Your task to perform on an android device: toggle sleep mode Image 0: 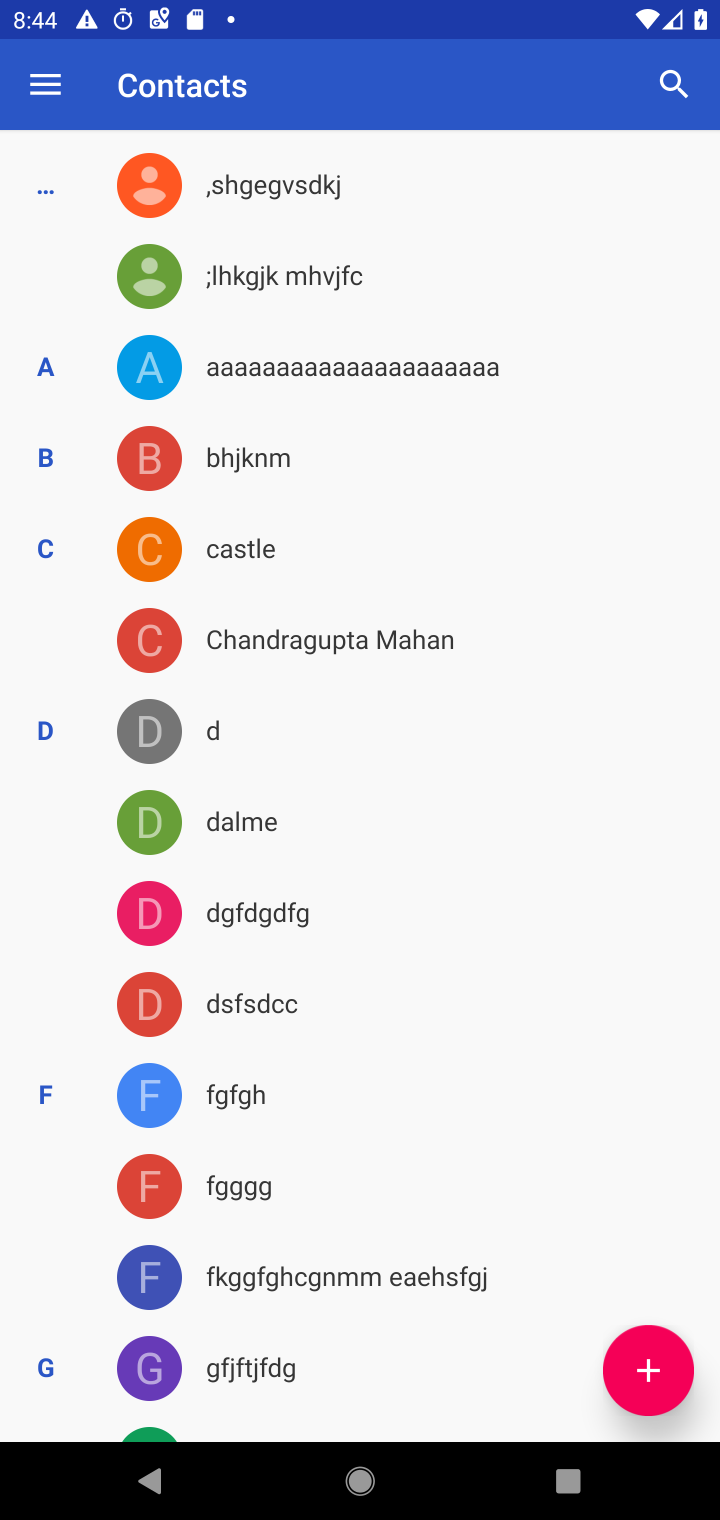
Step 0: press home button
Your task to perform on an android device: toggle sleep mode Image 1: 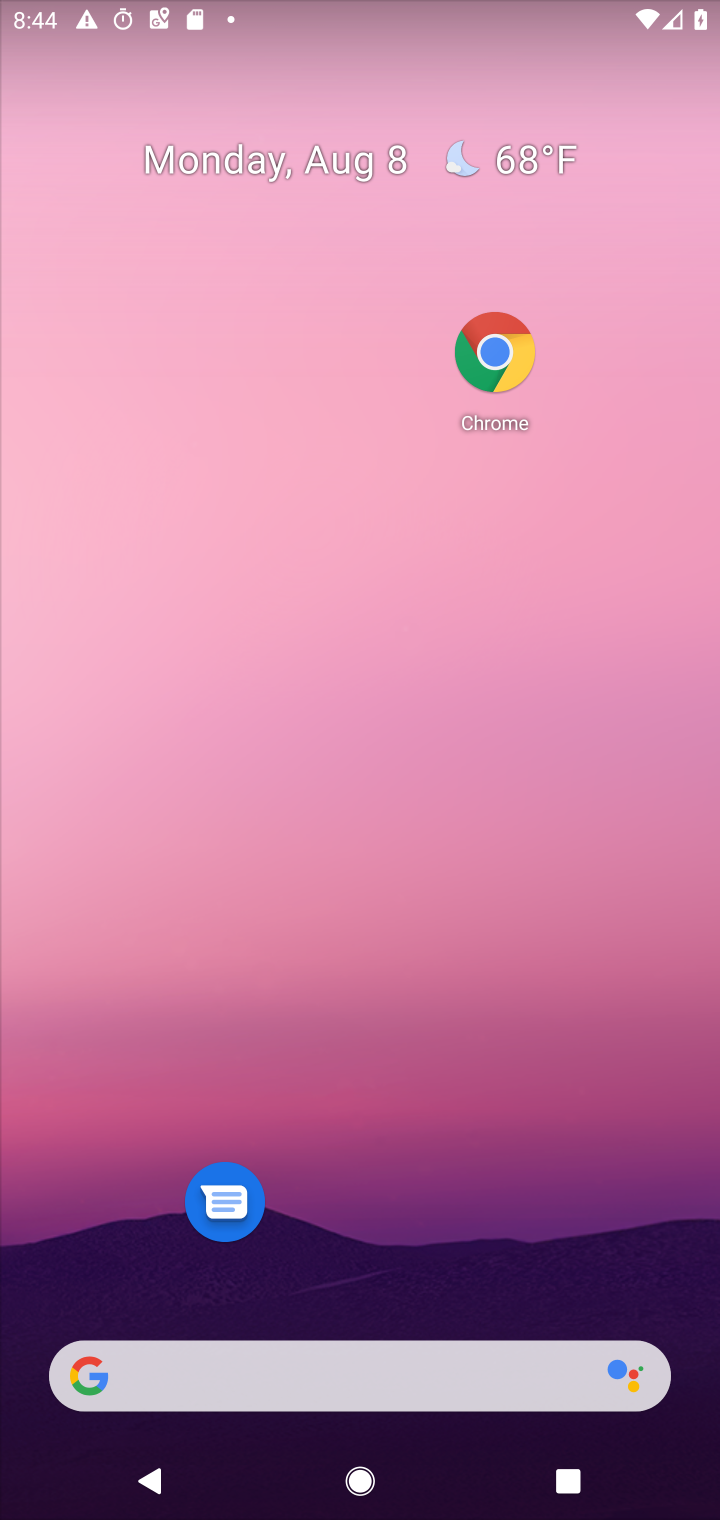
Step 1: drag from (415, 1330) to (546, 162)
Your task to perform on an android device: toggle sleep mode Image 2: 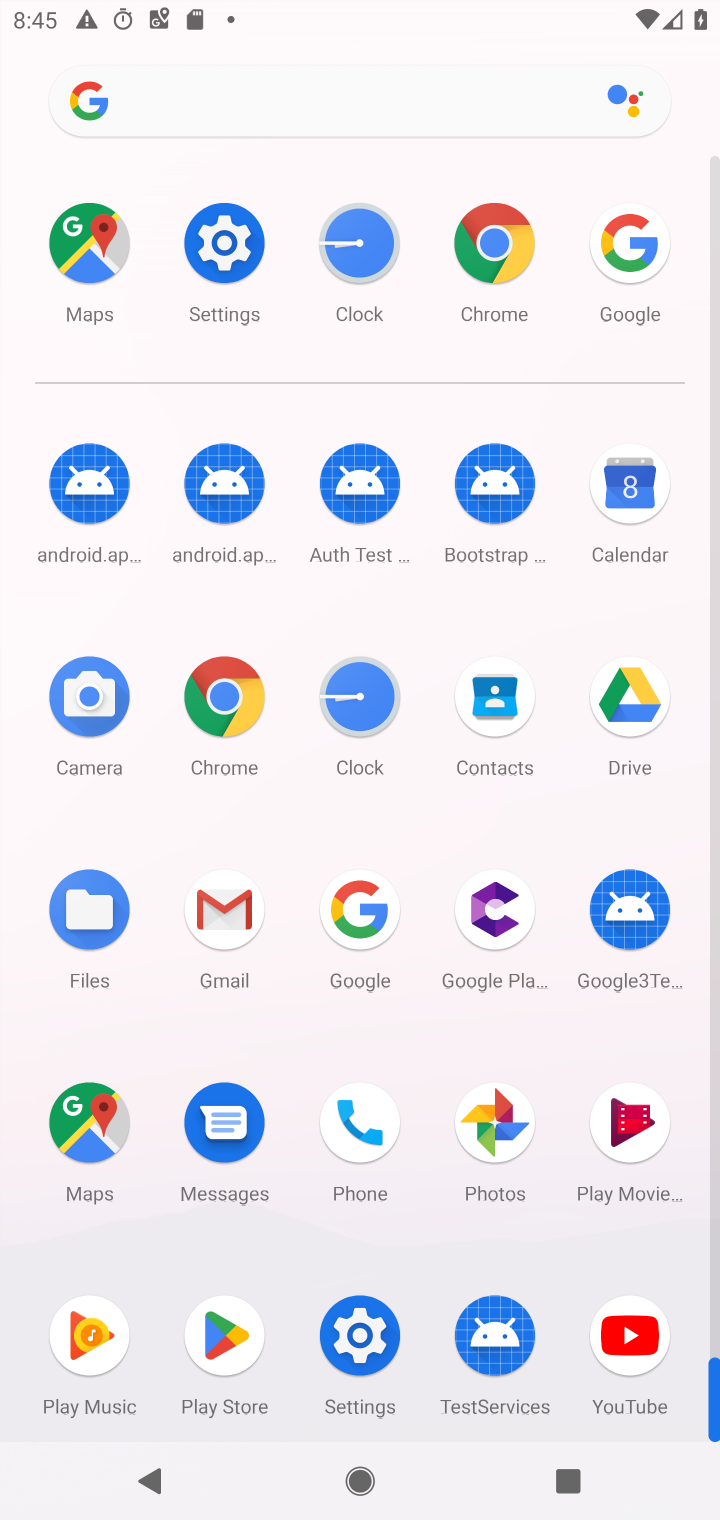
Step 2: click (373, 716)
Your task to perform on an android device: toggle sleep mode Image 3: 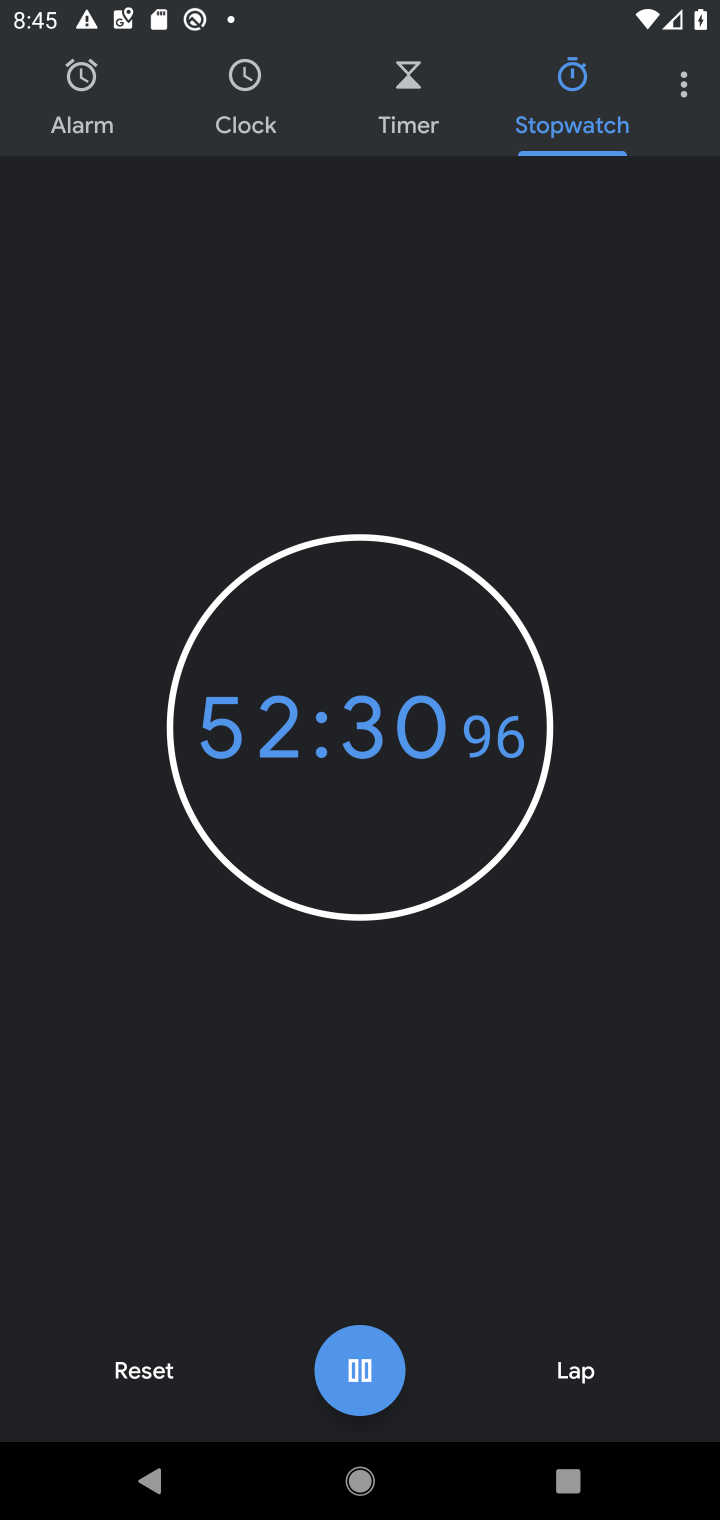
Step 3: press home button
Your task to perform on an android device: toggle sleep mode Image 4: 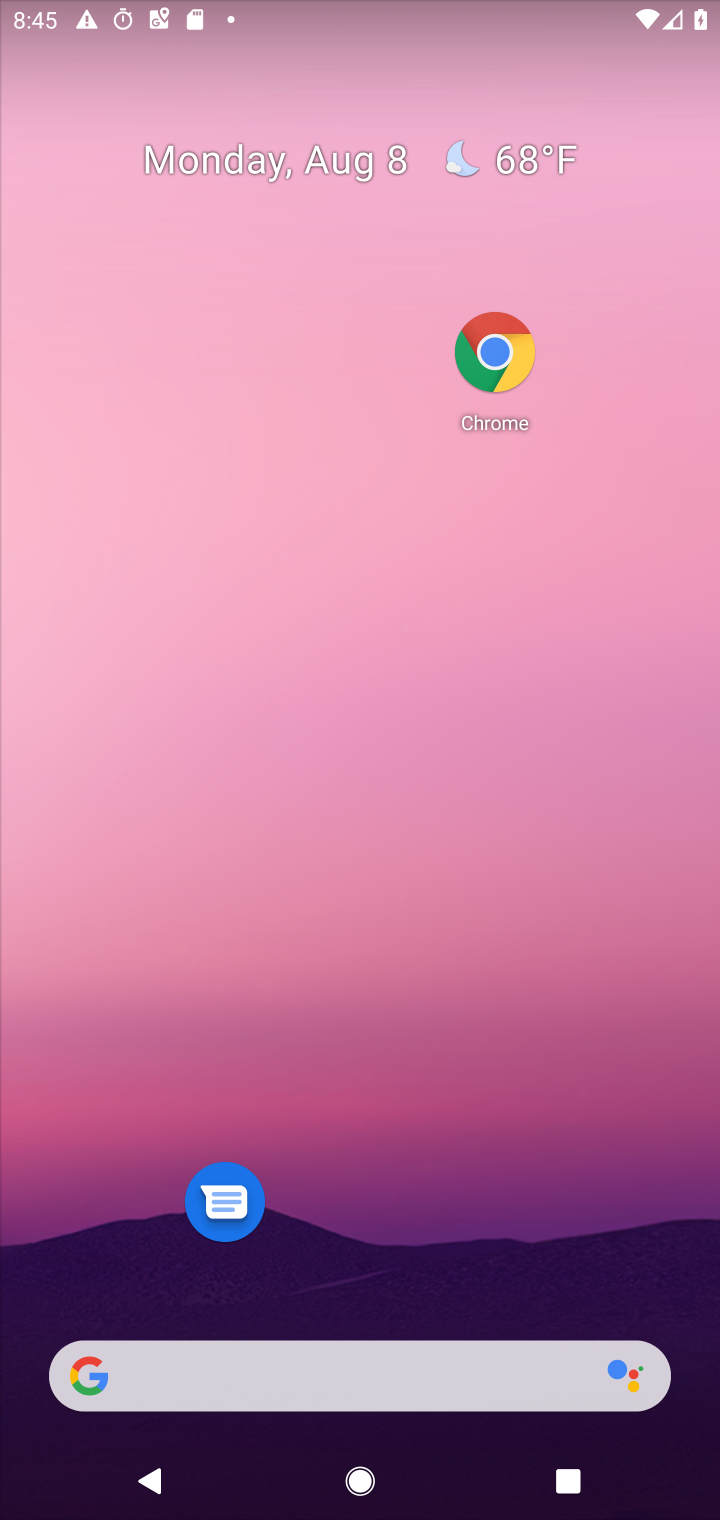
Step 4: drag from (368, 1218) to (425, 412)
Your task to perform on an android device: toggle sleep mode Image 5: 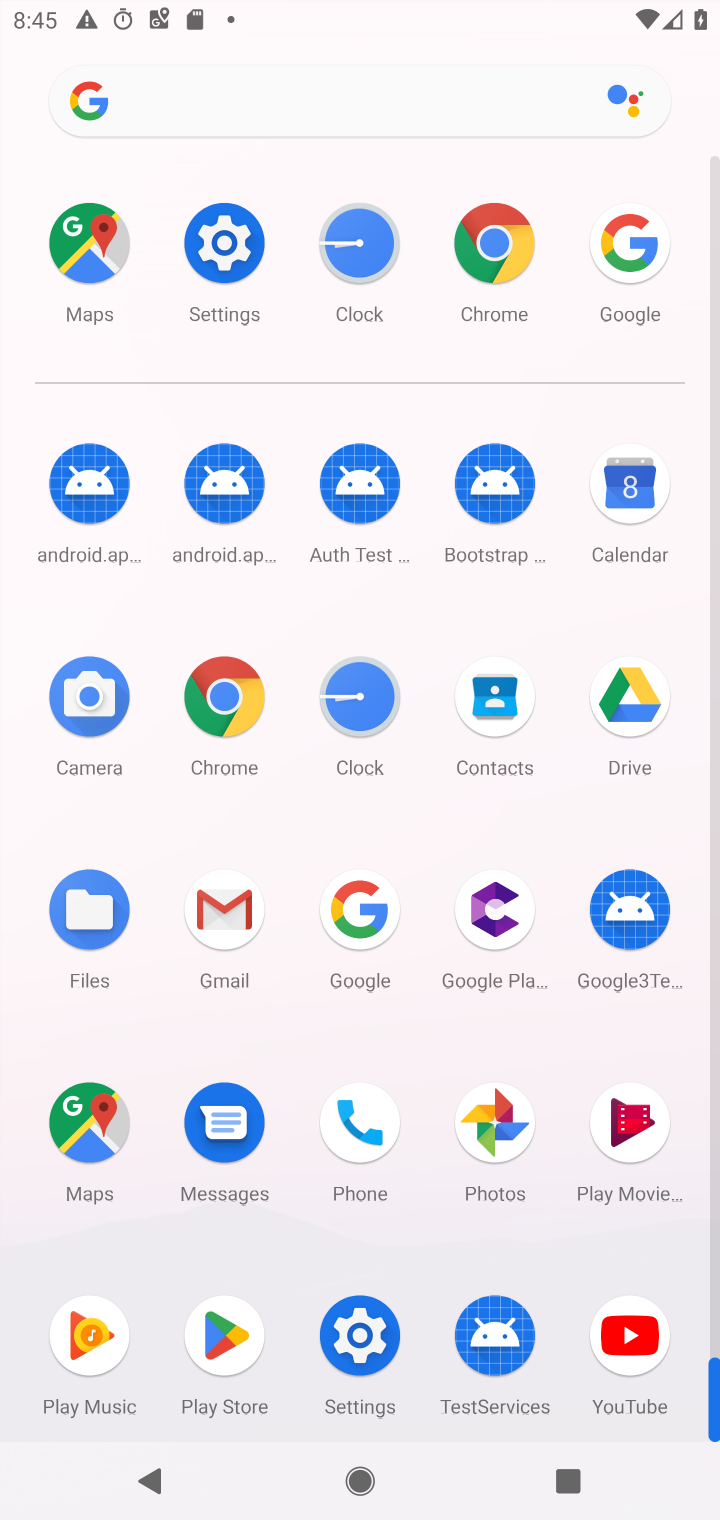
Step 5: click (214, 278)
Your task to perform on an android device: toggle sleep mode Image 6: 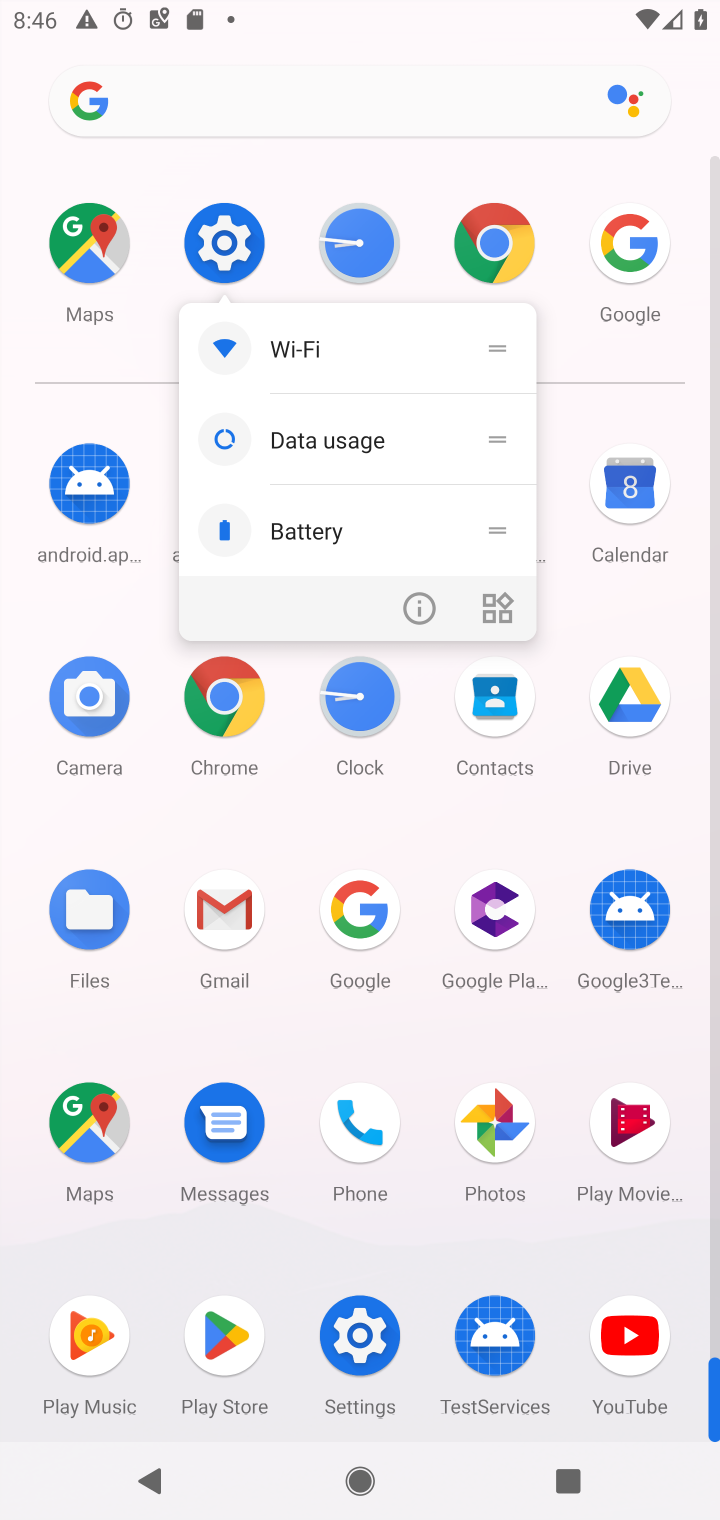
Step 6: click (232, 265)
Your task to perform on an android device: toggle sleep mode Image 7: 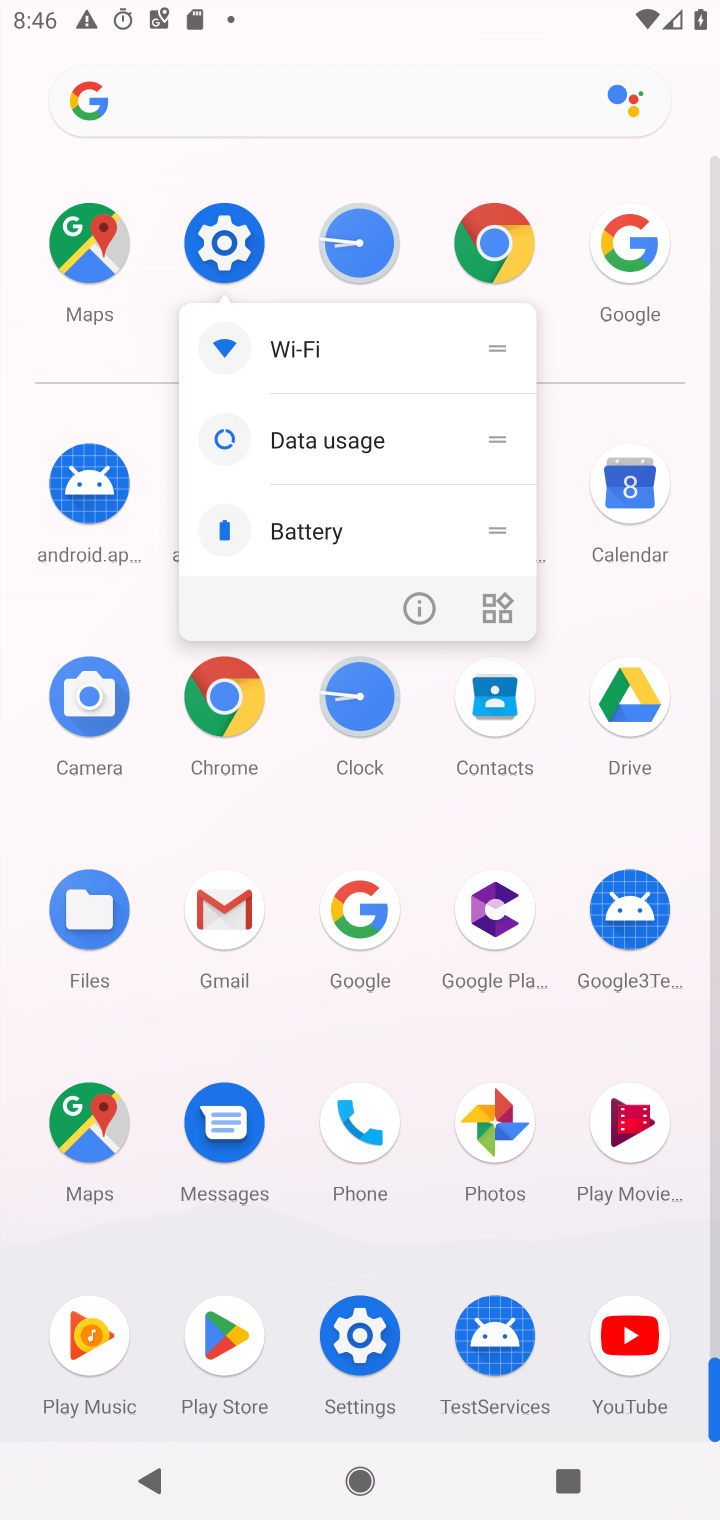
Step 7: click (232, 265)
Your task to perform on an android device: toggle sleep mode Image 8: 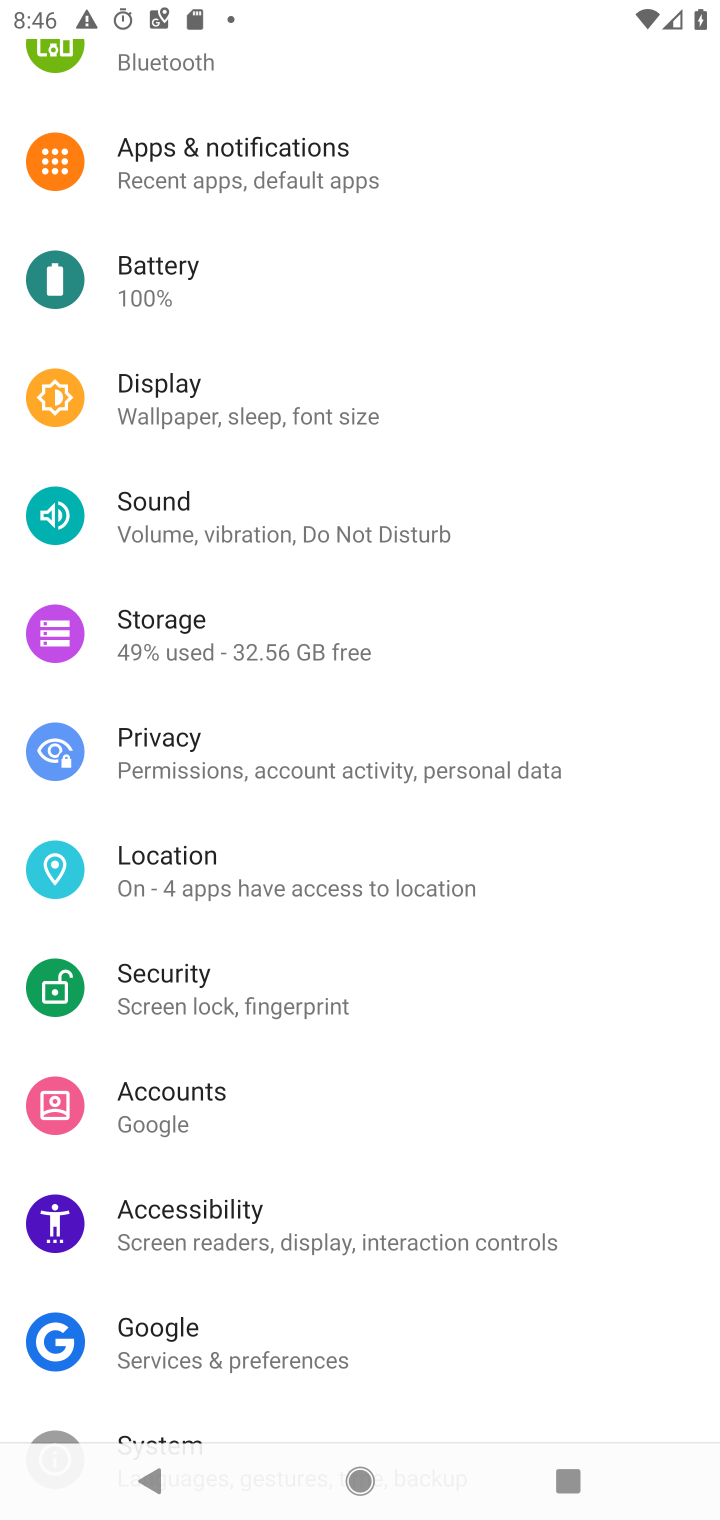
Step 8: click (242, 396)
Your task to perform on an android device: toggle sleep mode Image 9: 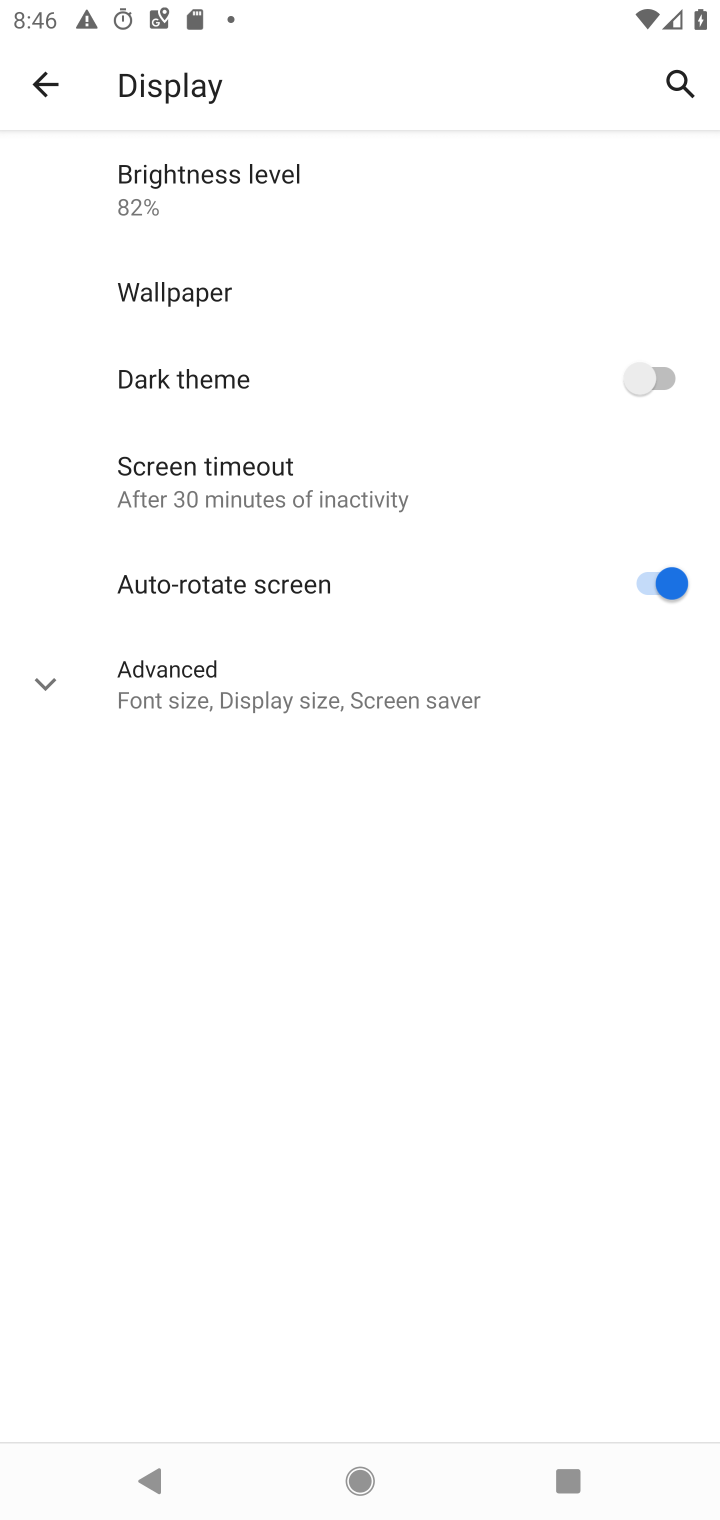
Step 9: click (223, 698)
Your task to perform on an android device: toggle sleep mode Image 10: 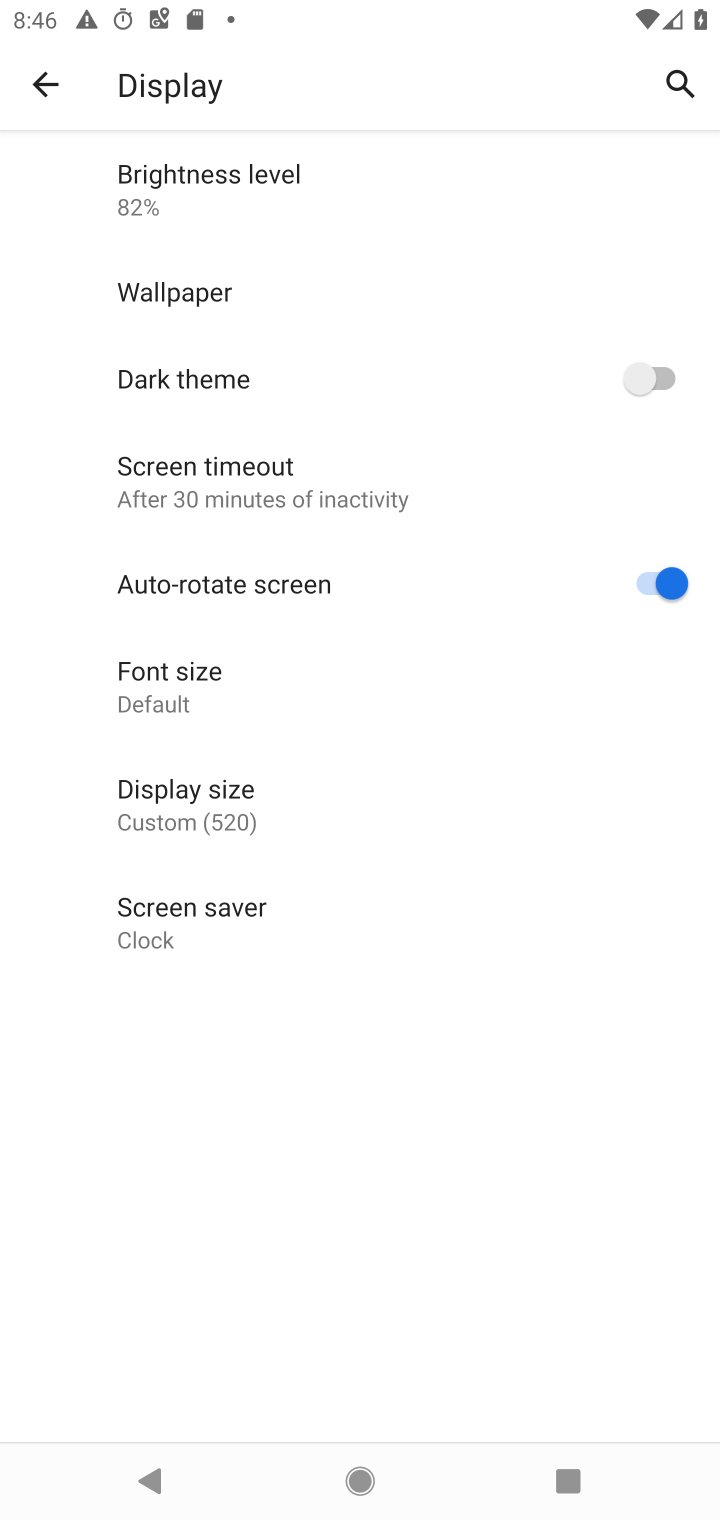
Step 10: task complete